Your task to perform on an android device: delete a single message in the gmail app Image 0: 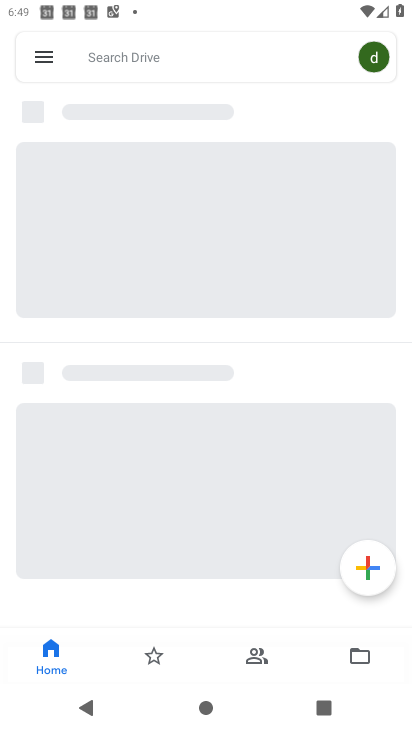
Step 0: press home button
Your task to perform on an android device: delete a single message in the gmail app Image 1: 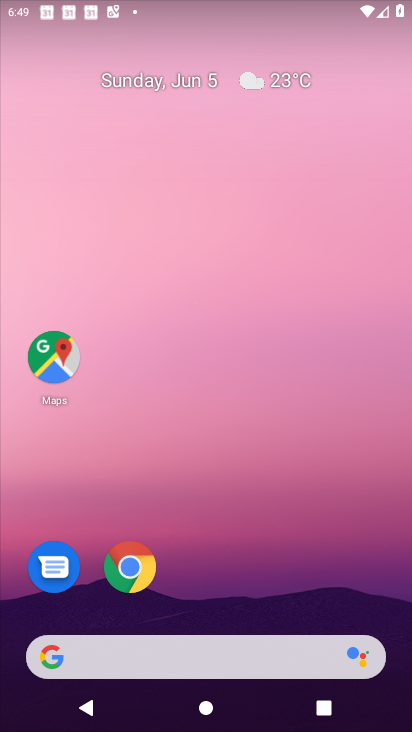
Step 1: drag from (387, 639) to (294, 29)
Your task to perform on an android device: delete a single message in the gmail app Image 2: 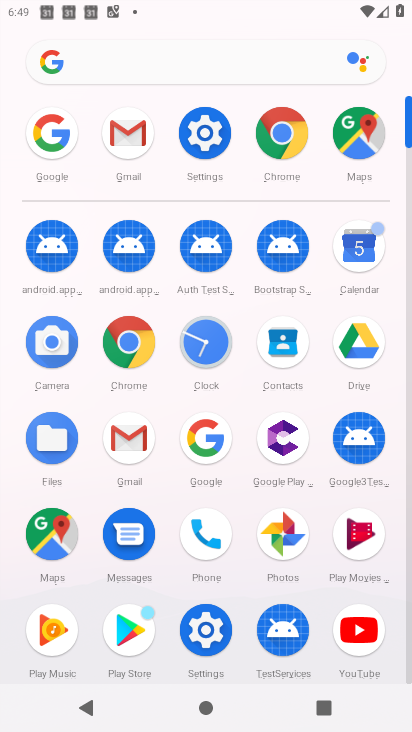
Step 2: click (137, 443)
Your task to perform on an android device: delete a single message in the gmail app Image 3: 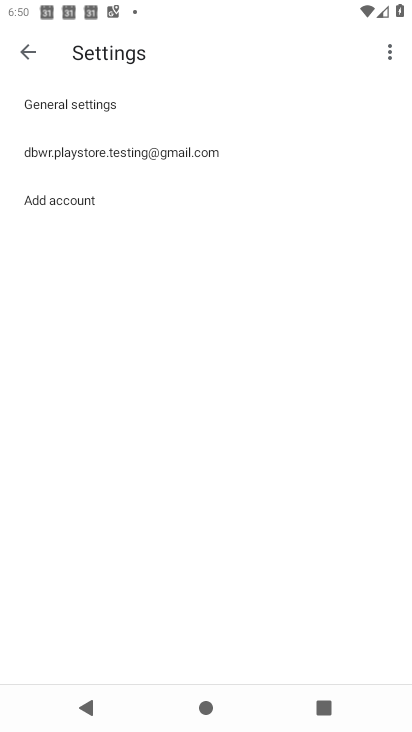
Step 3: press back button
Your task to perform on an android device: delete a single message in the gmail app Image 4: 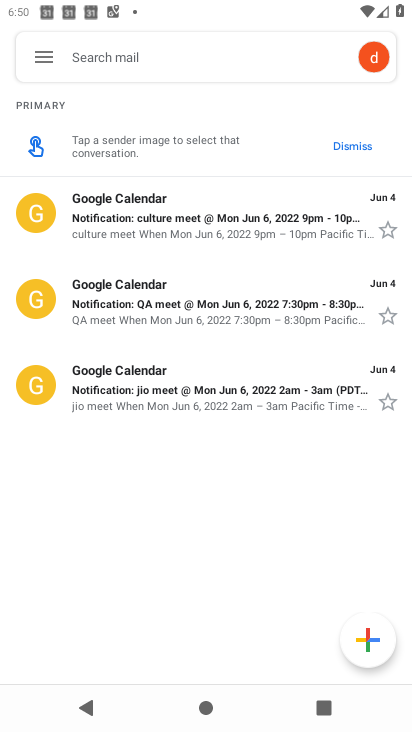
Step 4: click (113, 190)
Your task to perform on an android device: delete a single message in the gmail app Image 5: 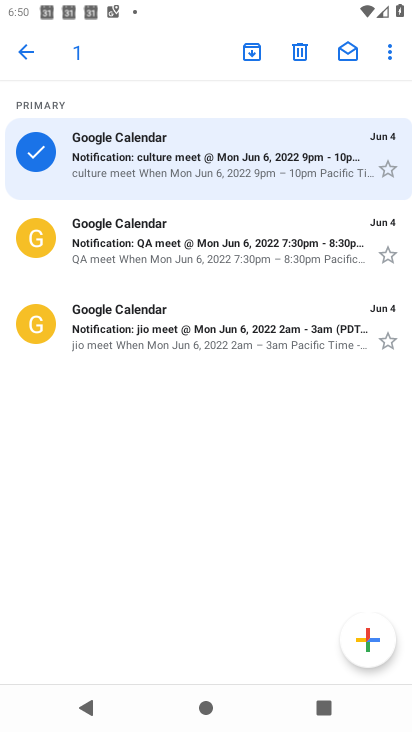
Step 5: click (300, 48)
Your task to perform on an android device: delete a single message in the gmail app Image 6: 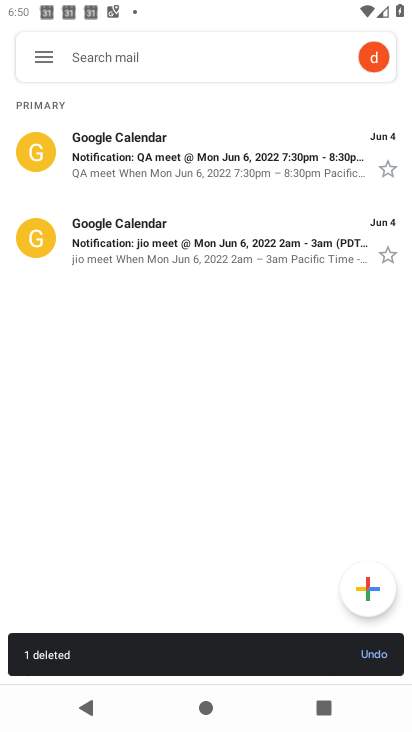
Step 6: task complete